Your task to perform on an android device: turn off smart reply in the gmail app Image 0: 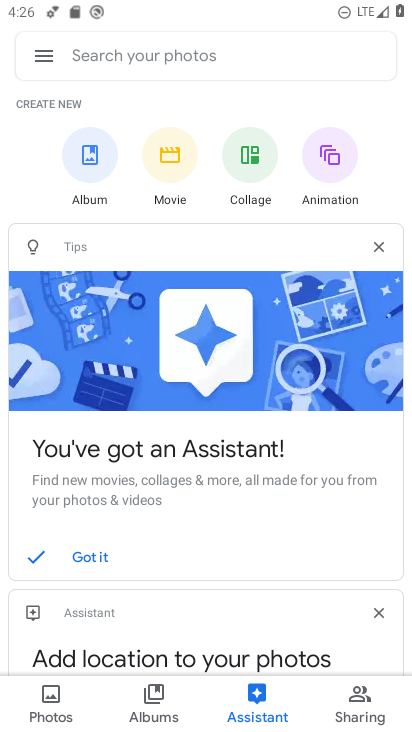
Step 0: press home button
Your task to perform on an android device: turn off smart reply in the gmail app Image 1: 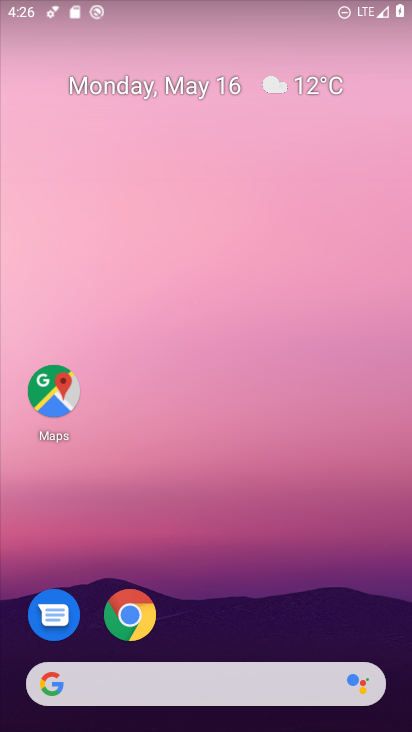
Step 1: drag from (223, 726) to (232, 268)
Your task to perform on an android device: turn off smart reply in the gmail app Image 2: 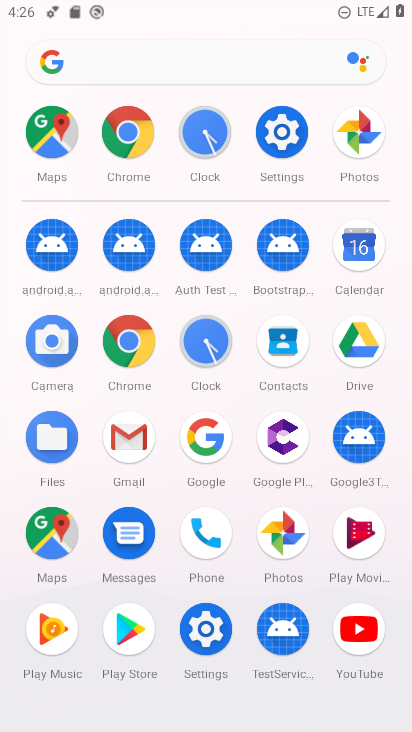
Step 2: click (130, 445)
Your task to perform on an android device: turn off smart reply in the gmail app Image 3: 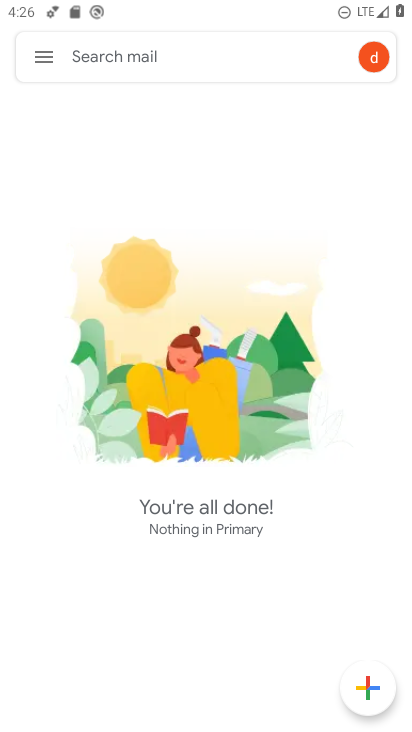
Step 3: click (41, 51)
Your task to perform on an android device: turn off smart reply in the gmail app Image 4: 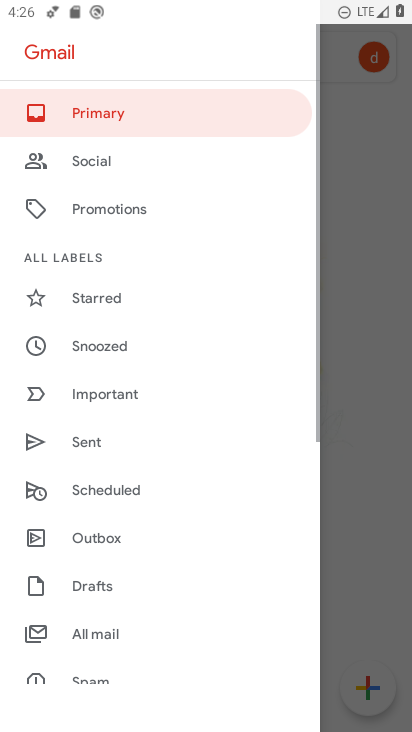
Step 4: drag from (78, 671) to (77, 207)
Your task to perform on an android device: turn off smart reply in the gmail app Image 5: 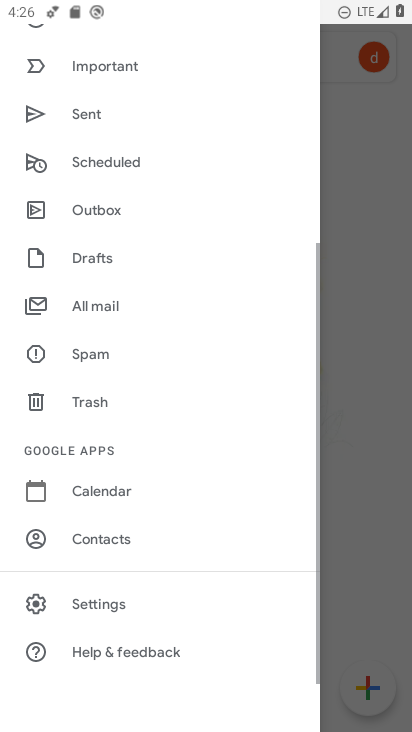
Step 5: click (104, 596)
Your task to perform on an android device: turn off smart reply in the gmail app Image 6: 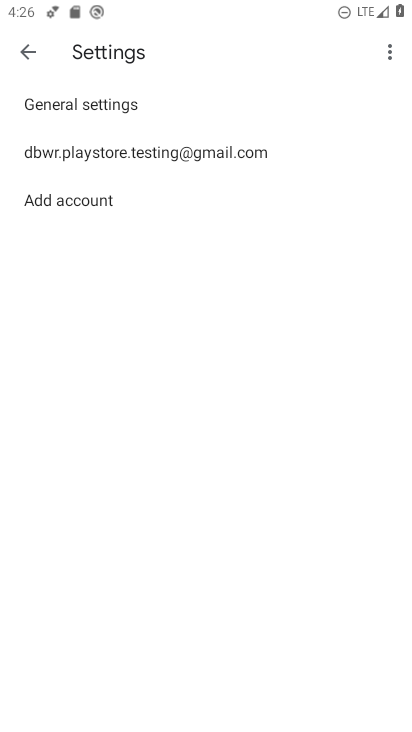
Step 6: click (145, 152)
Your task to perform on an android device: turn off smart reply in the gmail app Image 7: 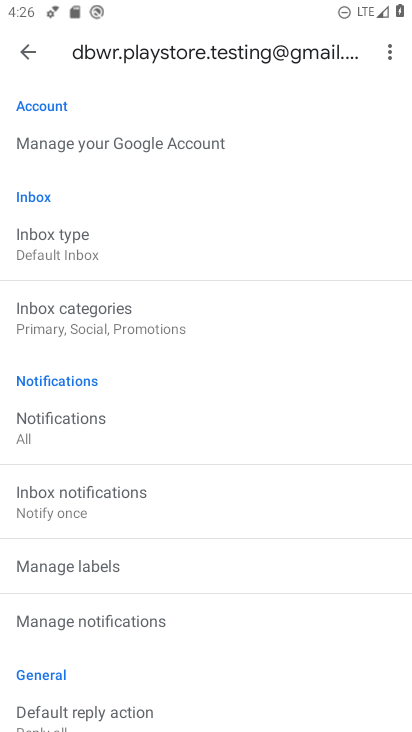
Step 7: drag from (136, 650) to (145, 238)
Your task to perform on an android device: turn off smart reply in the gmail app Image 8: 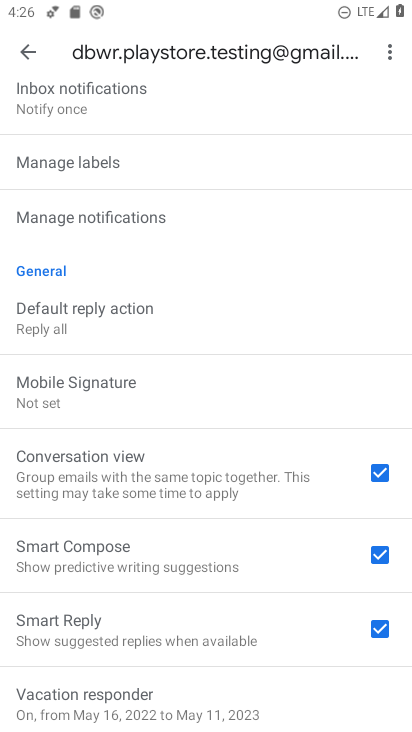
Step 8: click (379, 618)
Your task to perform on an android device: turn off smart reply in the gmail app Image 9: 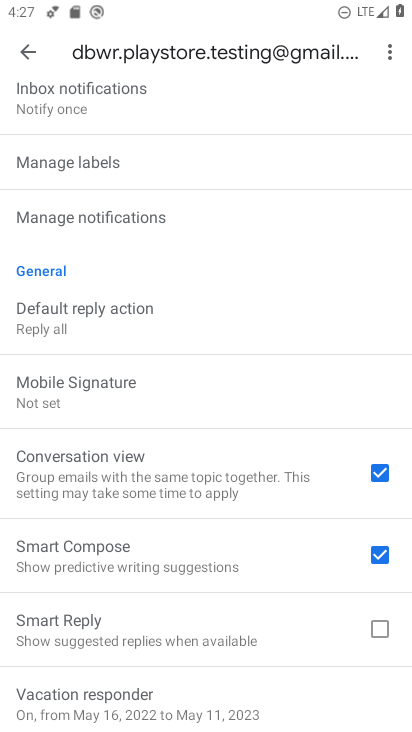
Step 9: task complete